Your task to perform on an android device: turn on data saver in the chrome app Image 0: 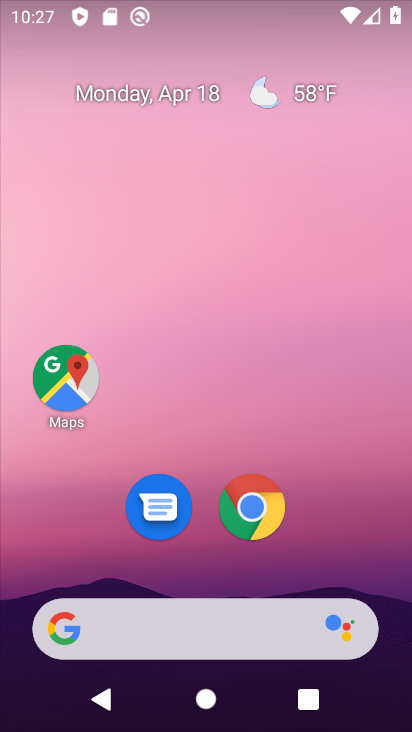
Step 0: click (267, 532)
Your task to perform on an android device: turn on data saver in the chrome app Image 1: 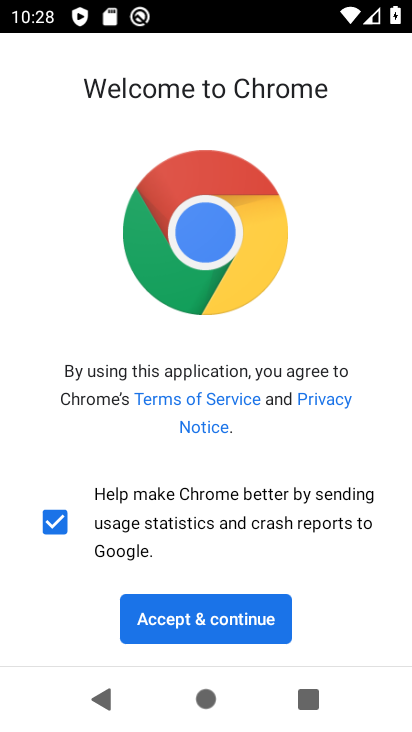
Step 1: click (235, 617)
Your task to perform on an android device: turn on data saver in the chrome app Image 2: 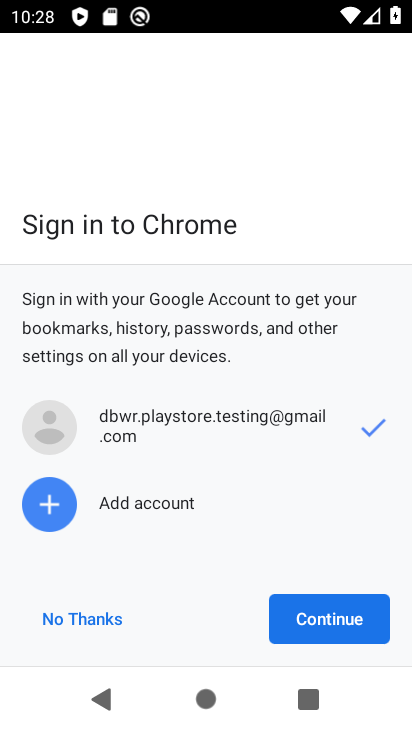
Step 2: click (309, 619)
Your task to perform on an android device: turn on data saver in the chrome app Image 3: 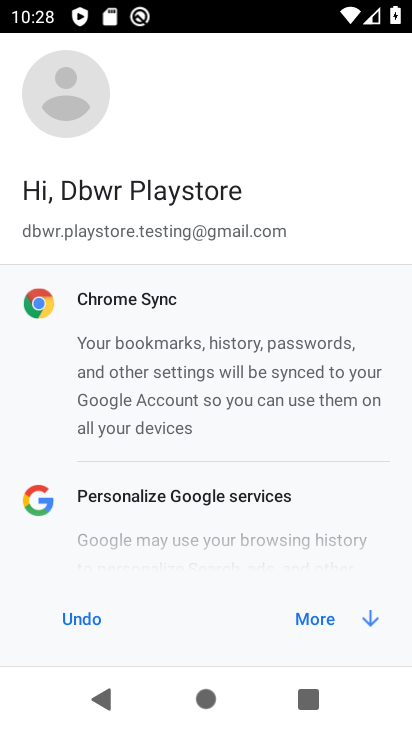
Step 3: click (309, 619)
Your task to perform on an android device: turn on data saver in the chrome app Image 4: 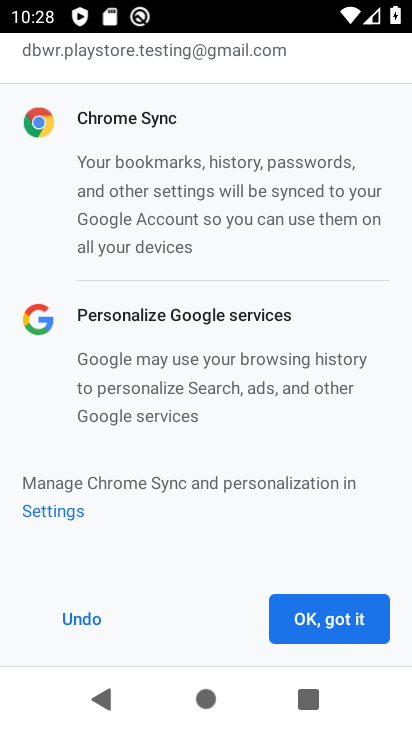
Step 4: click (309, 619)
Your task to perform on an android device: turn on data saver in the chrome app Image 5: 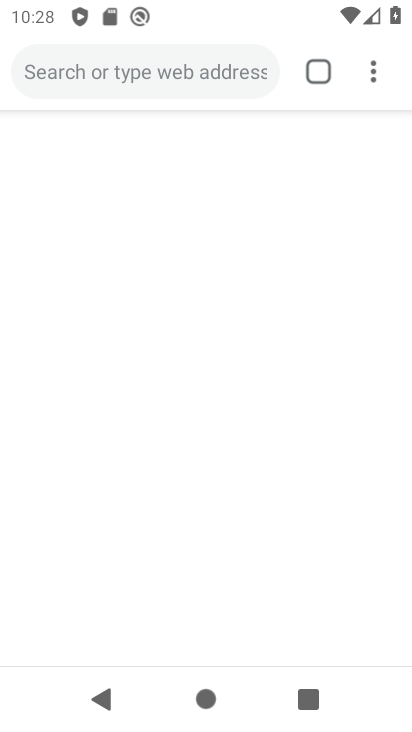
Step 5: click (309, 619)
Your task to perform on an android device: turn on data saver in the chrome app Image 6: 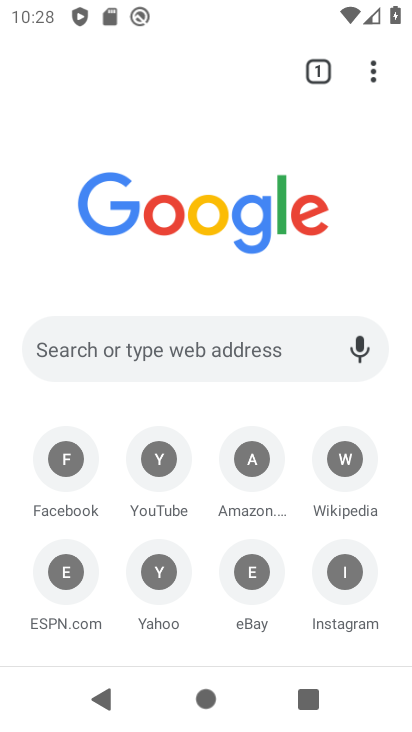
Step 6: click (370, 68)
Your task to perform on an android device: turn on data saver in the chrome app Image 7: 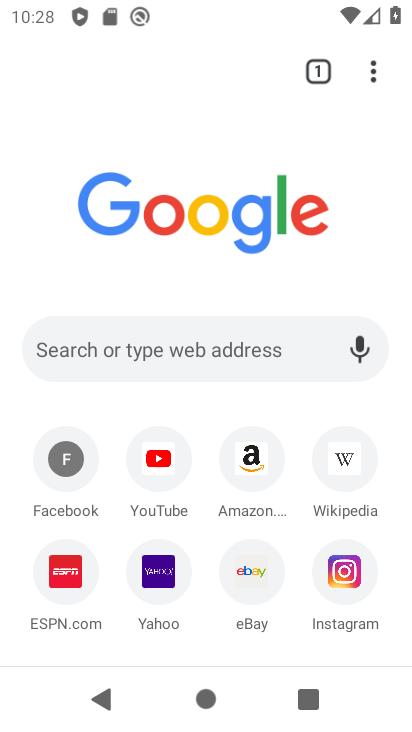
Step 7: click (370, 68)
Your task to perform on an android device: turn on data saver in the chrome app Image 8: 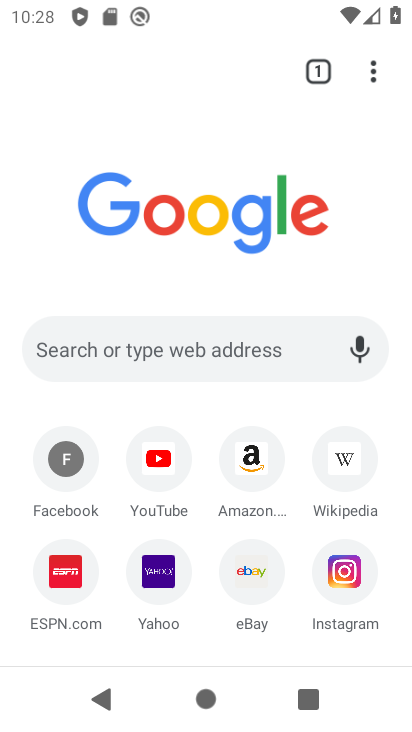
Step 8: click (363, 76)
Your task to perform on an android device: turn on data saver in the chrome app Image 9: 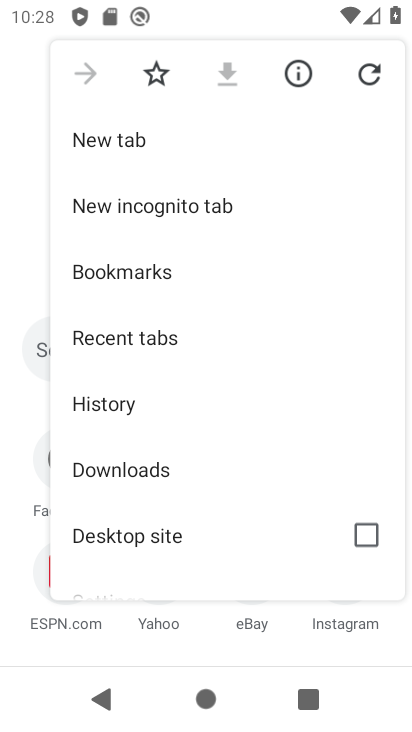
Step 9: drag from (128, 592) to (145, 276)
Your task to perform on an android device: turn on data saver in the chrome app Image 10: 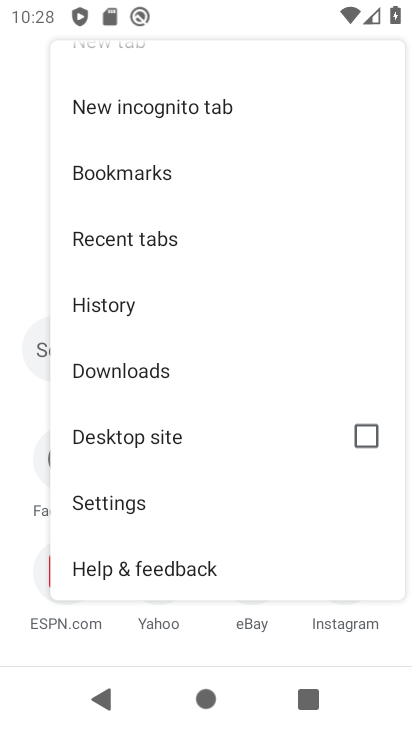
Step 10: click (114, 494)
Your task to perform on an android device: turn on data saver in the chrome app Image 11: 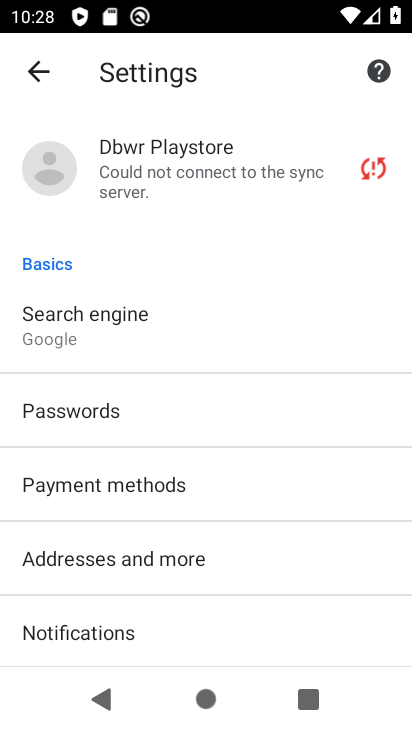
Step 11: drag from (98, 567) to (141, 161)
Your task to perform on an android device: turn on data saver in the chrome app Image 12: 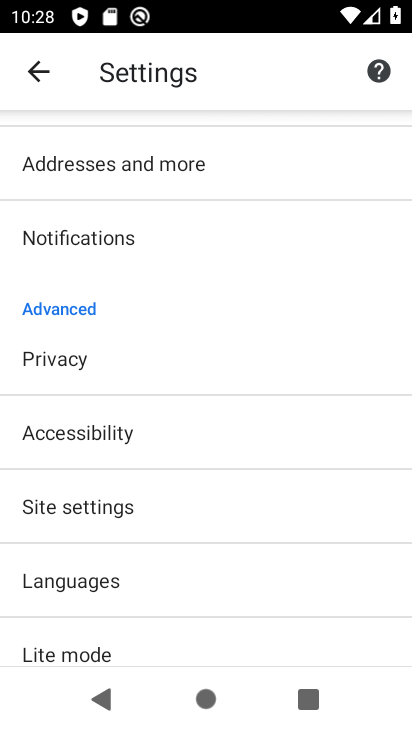
Step 12: click (70, 640)
Your task to perform on an android device: turn on data saver in the chrome app Image 13: 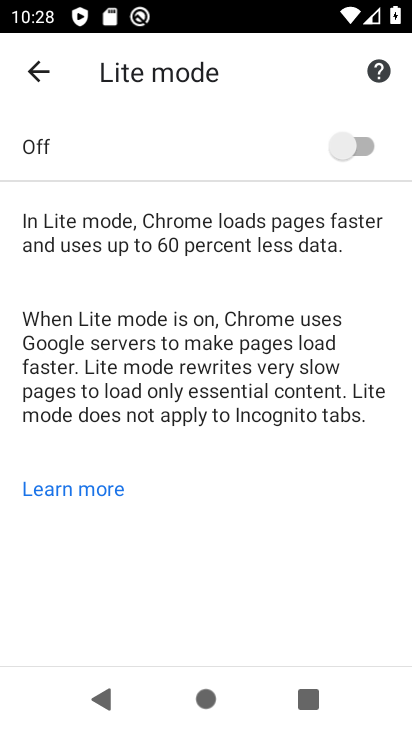
Step 13: click (365, 145)
Your task to perform on an android device: turn on data saver in the chrome app Image 14: 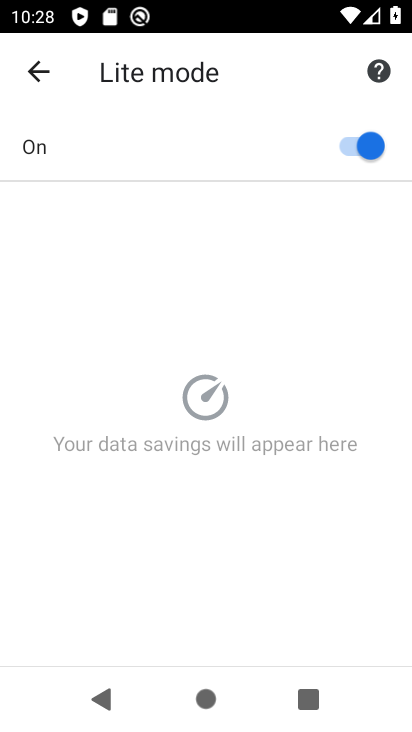
Step 14: task complete